Your task to perform on an android device: Go to Wikipedia Image 0: 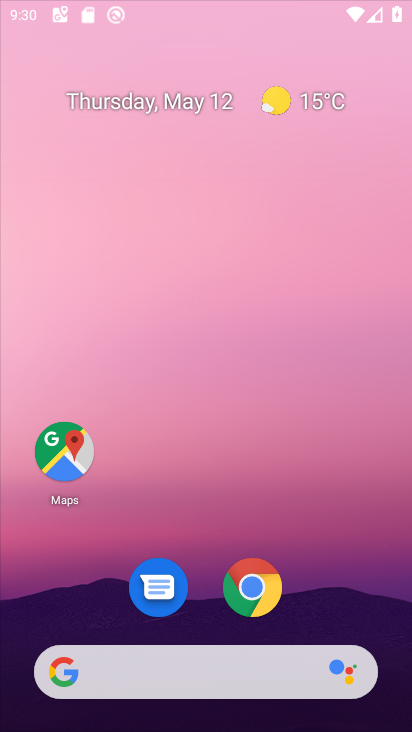
Step 0: click (311, 23)
Your task to perform on an android device: Go to Wikipedia Image 1: 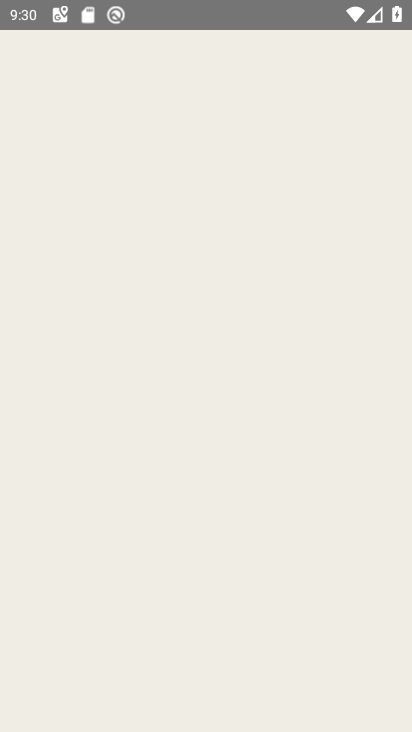
Step 1: press home button
Your task to perform on an android device: Go to Wikipedia Image 2: 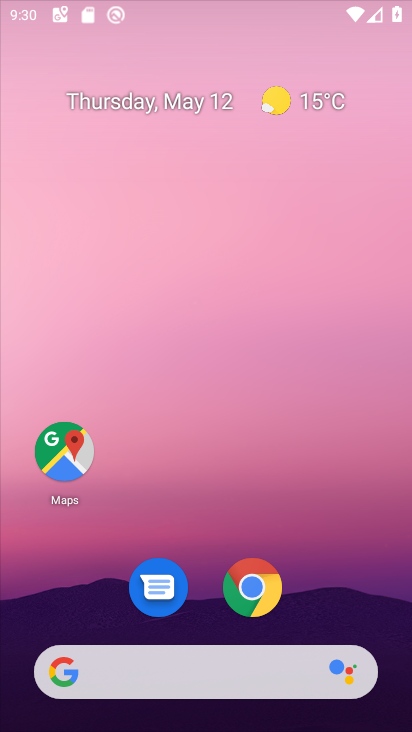
Step 2: drag from (389, 629) to (274, 55)
Your task to perform on an android device: Go to Wikipedia Image 3: 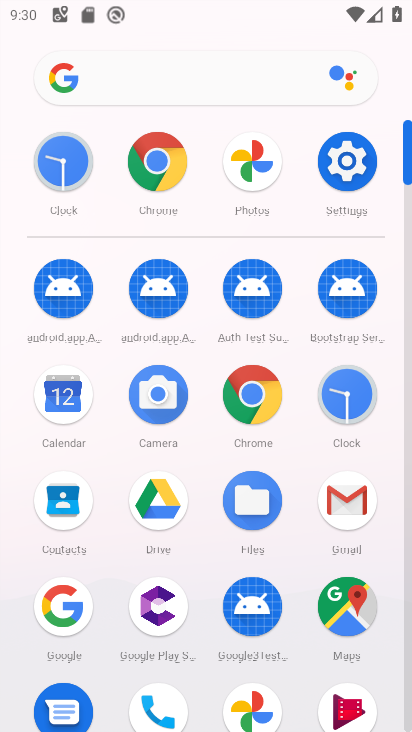
Step 3: click (183, 149)
Your task to perform on an android device: Go to Wikipedia Image 4: 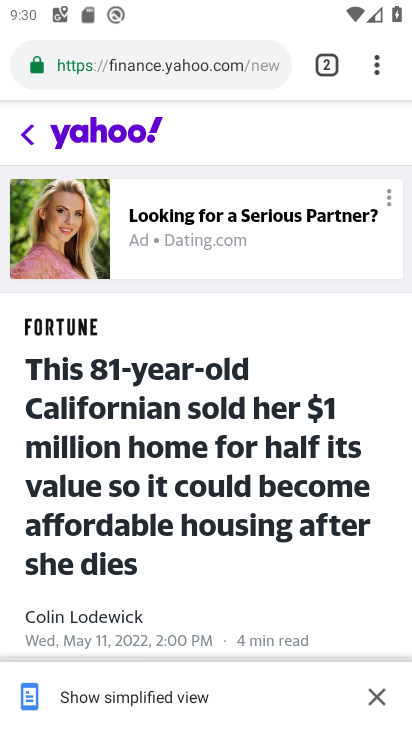
Step 4: press back button
Your task to perform on an android device: Go to Wikipedia Image 5: 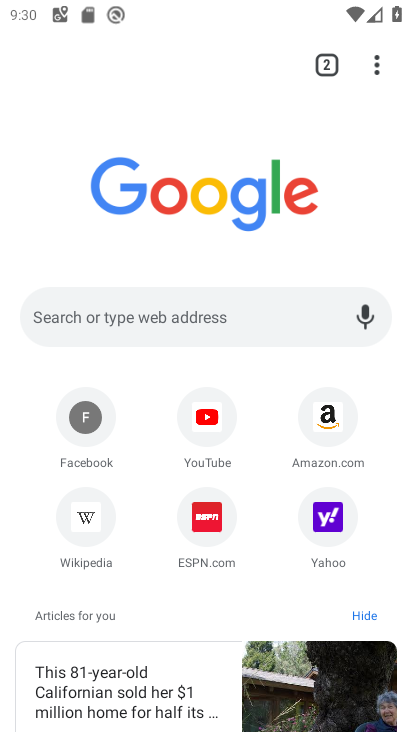
Step 5: click (97, 516)
Your task to perform on an android device: Go to Wikipedia Image 6: 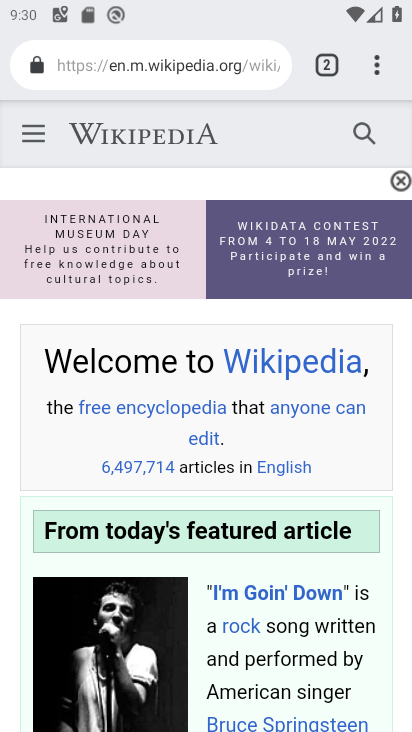
Step 6: task complete